Your task to perform on an android device: turn off javascript in the chrome app Image 0: 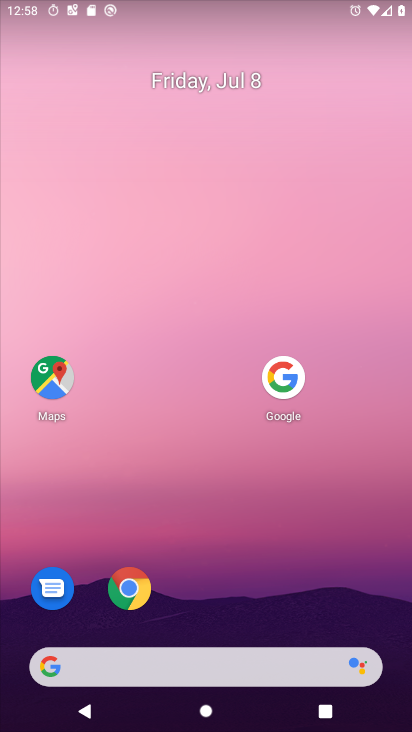
Step 0: click (128, 595)
Your task to perform on an android device: turn off javascript in the chrome app Image 1: 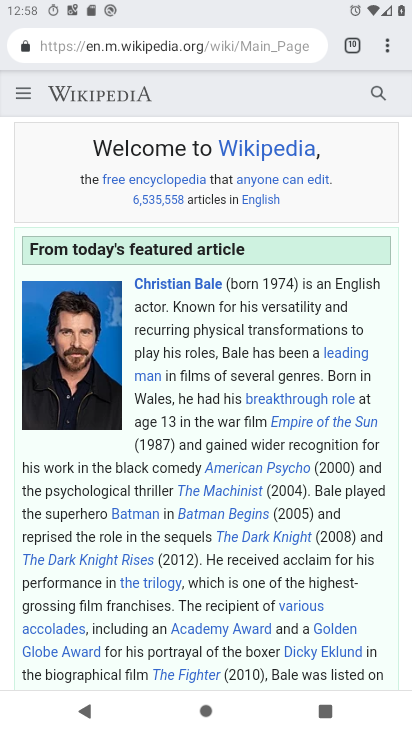
Step 1: drag from (389, 42) to (227, 555)
Your task to perform on an android device: turn off javascript in the chrome app Image 2: 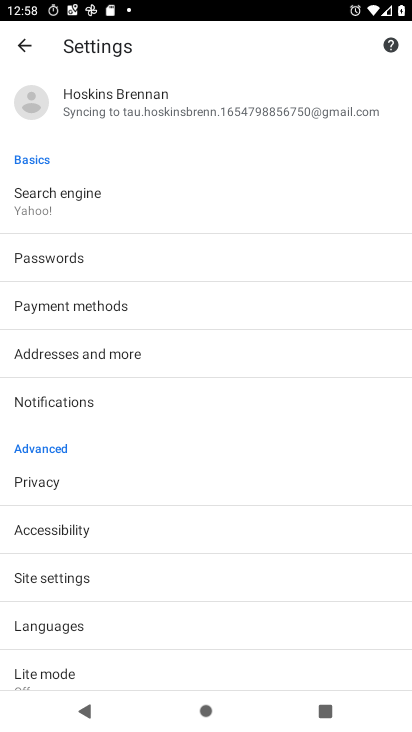
Step 2: click (56, 572)
Your task to perform on an android device: turn off javascript in the chrome app Image 3: 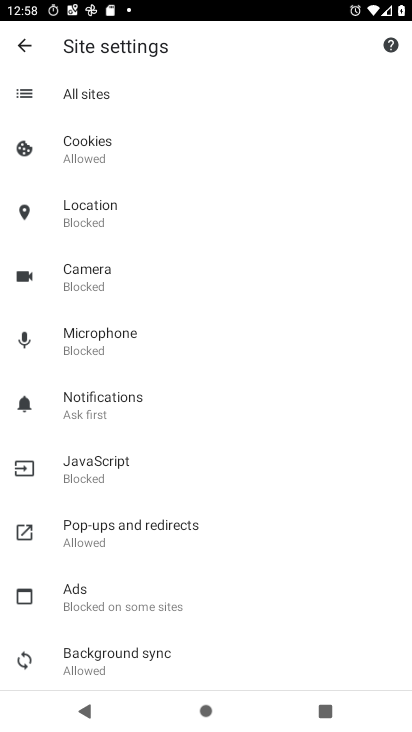
Step 3: click (100, 459)
Your task to perform on an android device: turn off javascript in the chrome app Image 4: 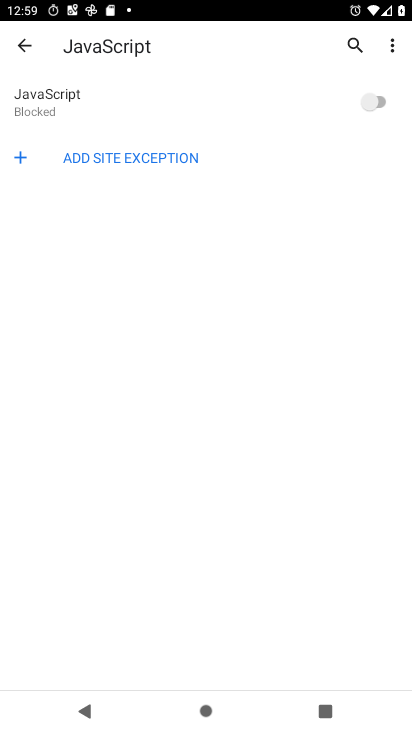
Step 4: task complete